Your task to perform on an android device: set the stopwatch Image 0: 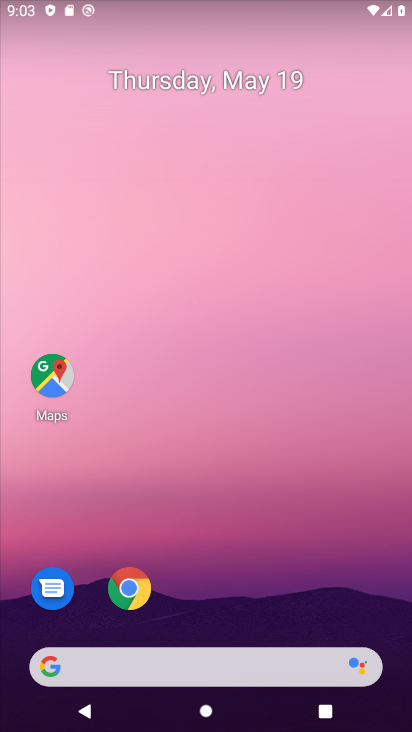
Step 0: drag from (183, 657) to (305, 229)
Your task to perform on an android device: set the stopwatch Image 1: 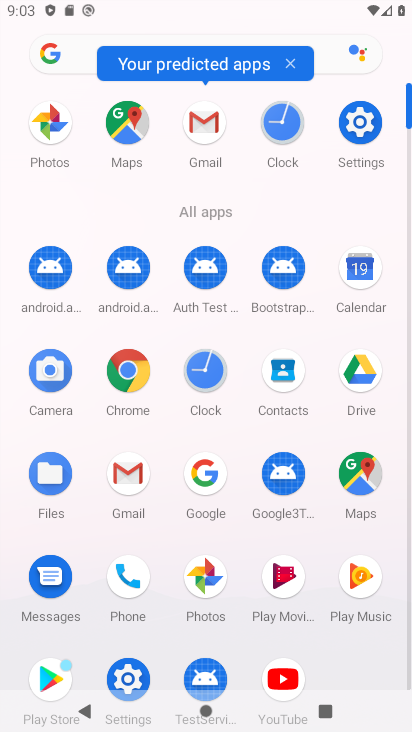
Step 1: click (284, 128)
Your task to perform on an android device: set the stopwatch Image 2: 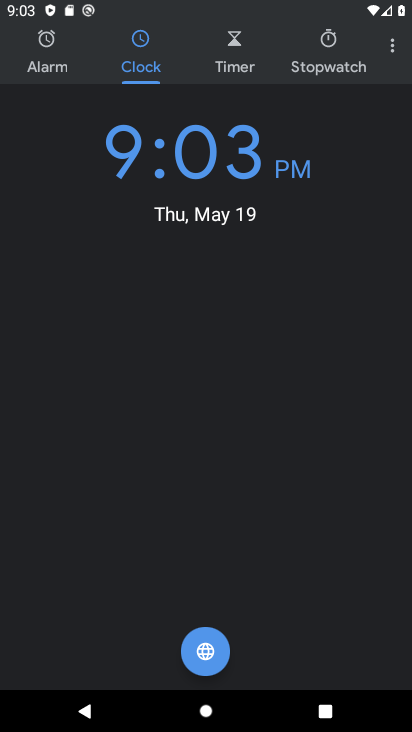
Step 2: click (329, 44)
Your task to perform on an android device: set the stopwatch Image 3: 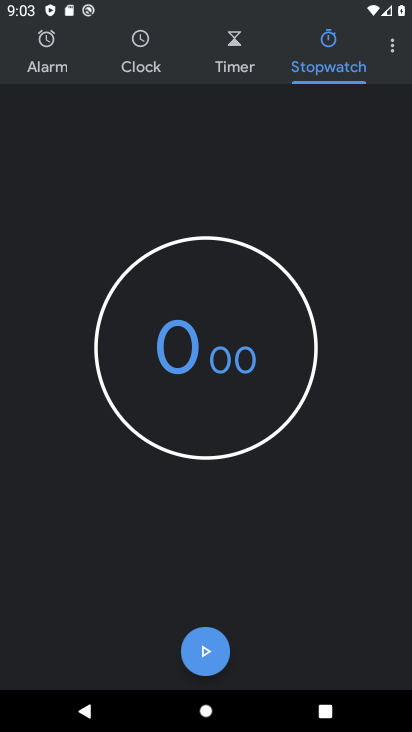
Step 3: click (216, 344)
Your task to perform on an android device: set the stopwatch Image 4: 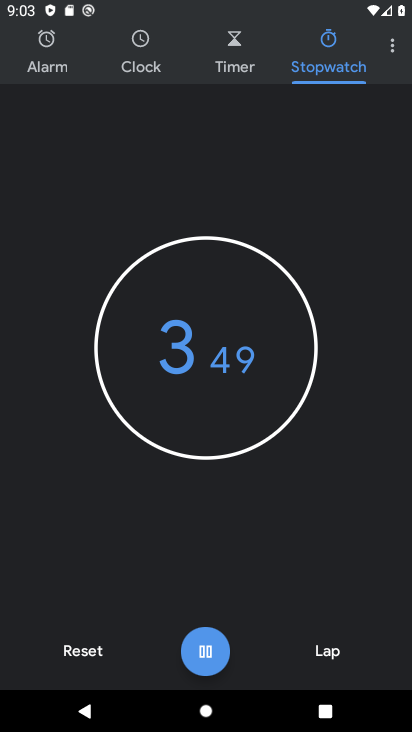
Step 4: click (216, 343)
Your task to perform on an android device: set the stopwatch Image 5: 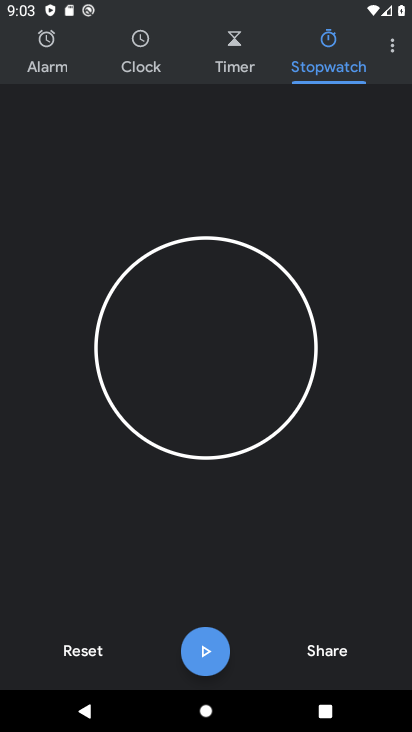
Step 5: task complete